Your task to perform on an android device: Open Maps and search for coffee Image 0: 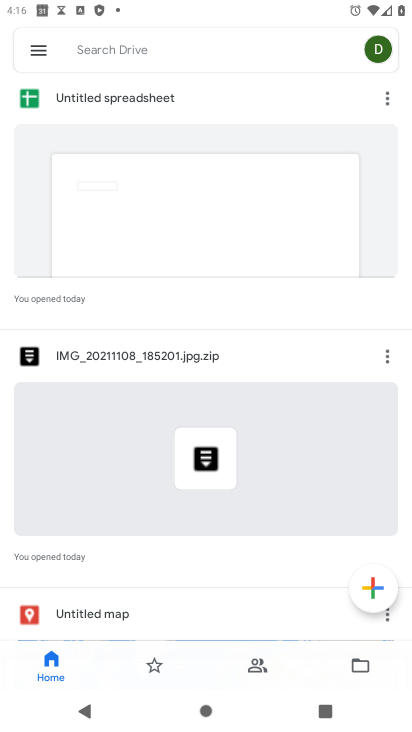
Step 0: press home button
Your task to perform on an android device: Open Maps and search for coffee Image 1: 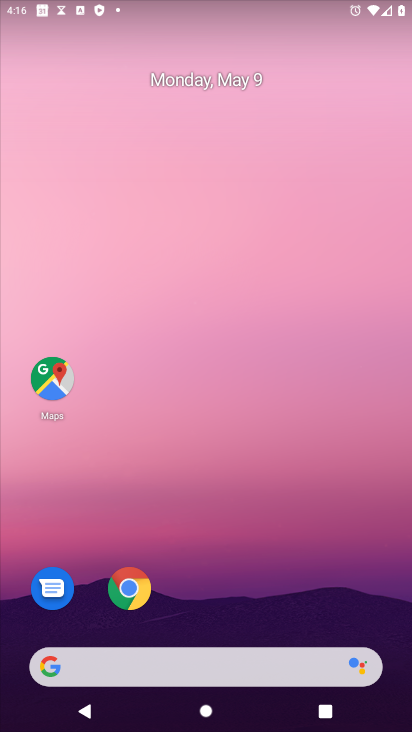
Step 1: click (67, 397)
Your task to perform on an android device: Open Maps and search for coffee Image 2: 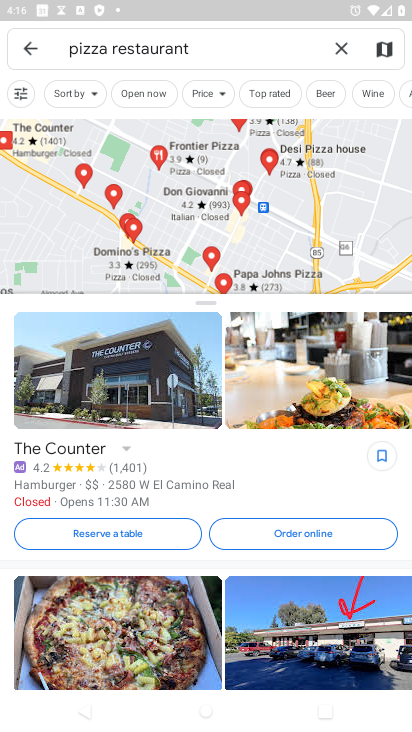
Step 2: click (202, 60)
Your task to perform on an android device: Open Maps and search for coffee Image 3: 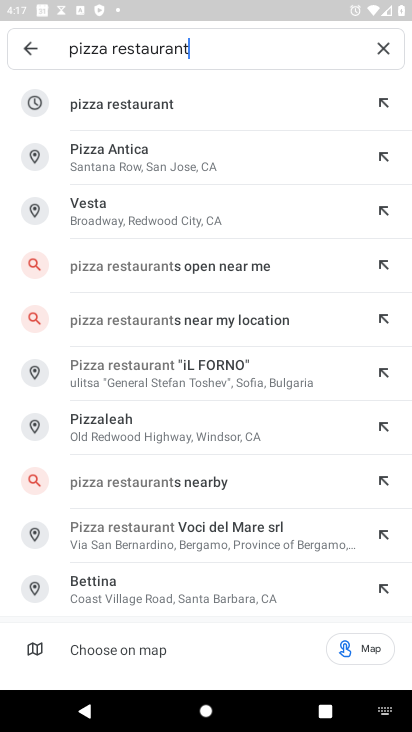
Step 3: click (378, 54)
Your task to perform on an android device: Open Maps and search for coffee Image 4: 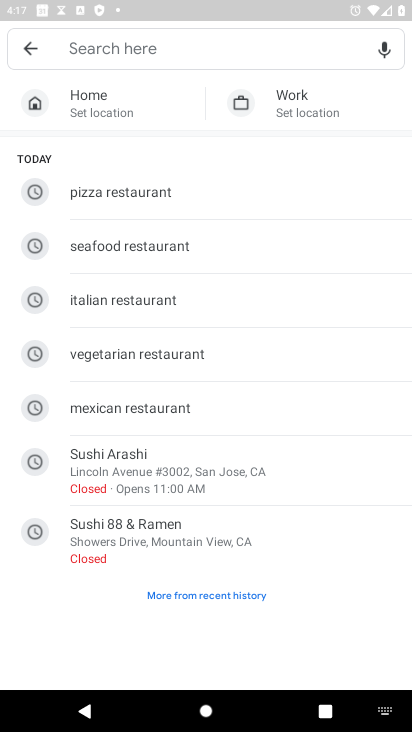
Step 4: type "coffee"
Your task to perform on an android device: Open Maps and search for coffee Image 5: 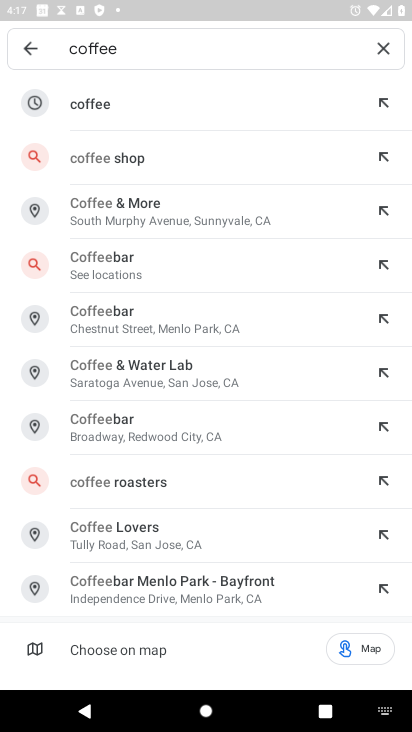
Step 5: click (128, 100)
Your task to perform on an android device: Open Maps and search for coffee Image 6: 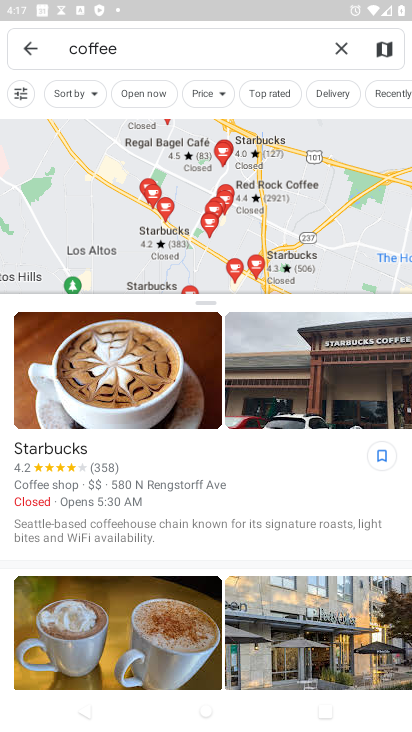
Step 6: task complete